Your task to perform on an android device: Go to Yahoo.com Image 0: 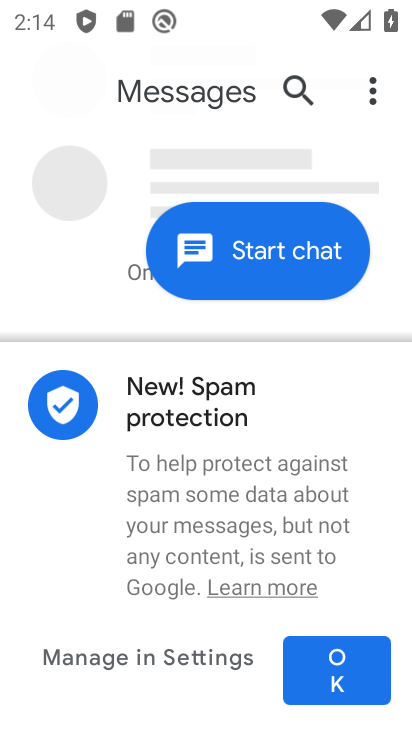
Step 0: press home button
Your task to perform on an android device: Go to Yahoo.com Image 1: 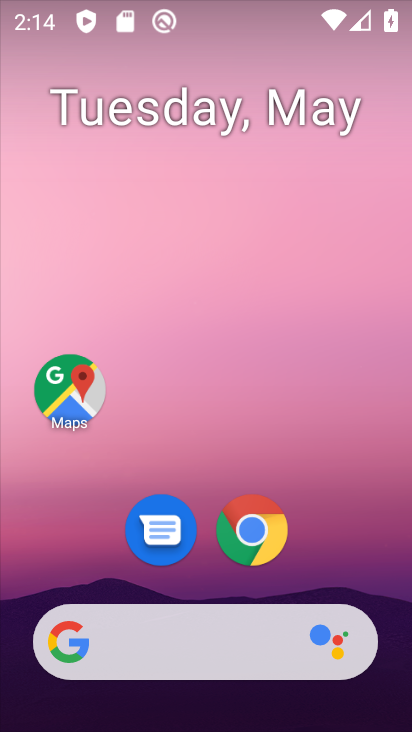
Step 1: click (233, 510)
Your task to perform on an android device: Go to Yahoo.com Image 2: 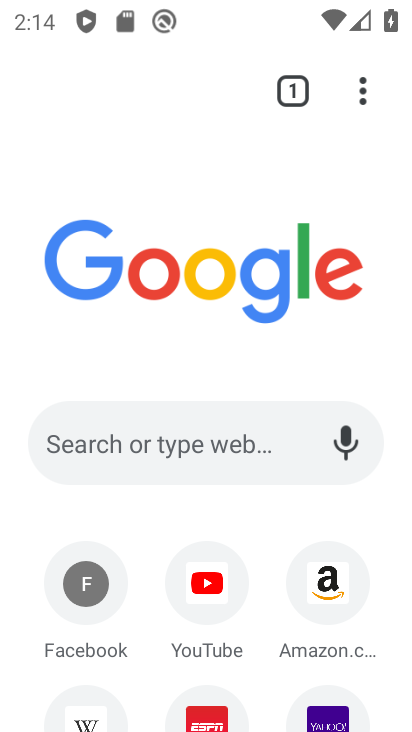
Step 2: click (327, 701)
Your task to perform on an android device: Go to Yahoo.com Image 3: 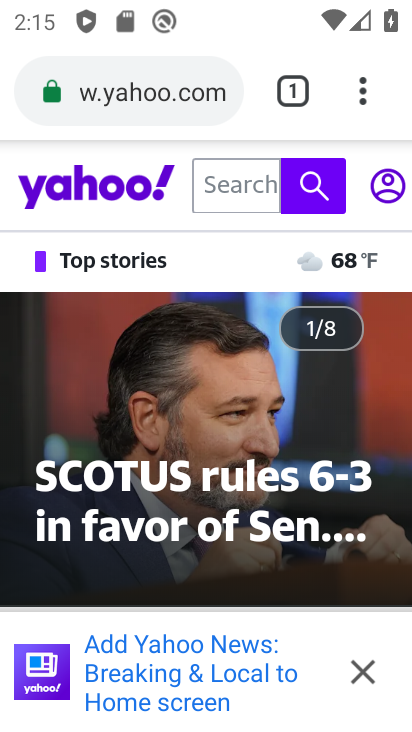
Step 3: task complete